Your task to perform on an android device: change alarm snooze length Image 0: 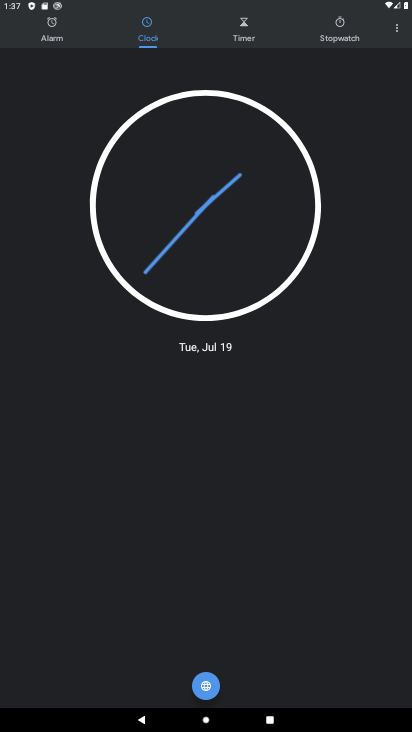
Step 0: click (399, 29)
Your task to perform on an android device: change alarm snooze length Image 1: 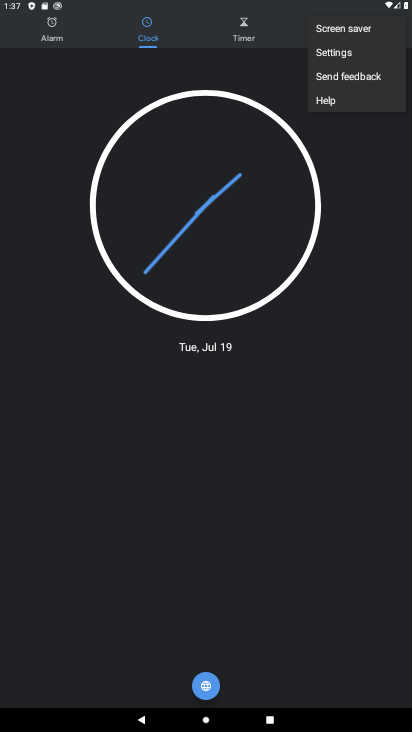
Step 1: click (352, 48)
Your task to perform on an android device: change alarm snooze length Image 2: 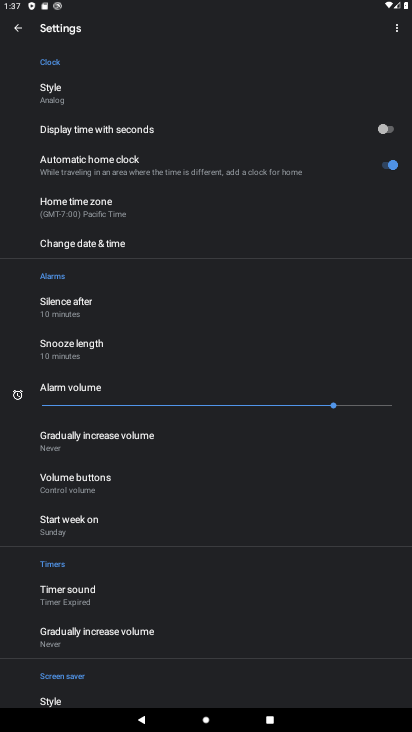
Step 2: click (107, 355)
Your task to perform on an android device: change alarm snooze length Image 3: 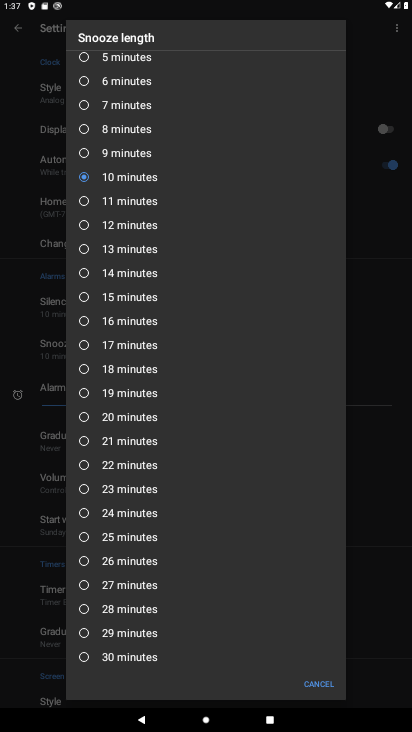
Step 3: click (117, 197)
Your task to perform on an android device: change alarm snooze length Image 4: 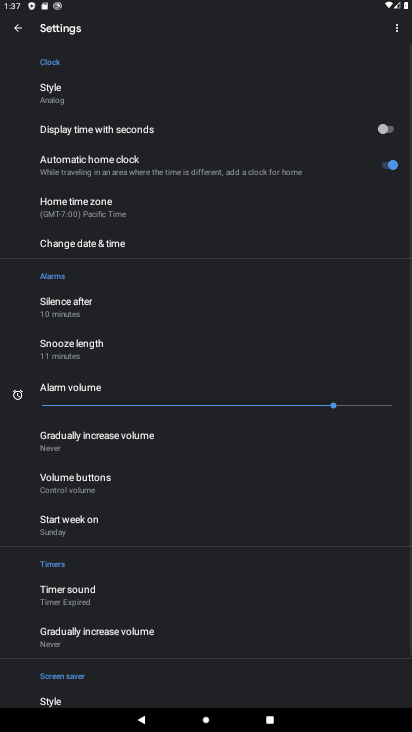
Step 4: task complete